Your task to perform on an android device: What's the weather going to be tomorrow? Image 0: 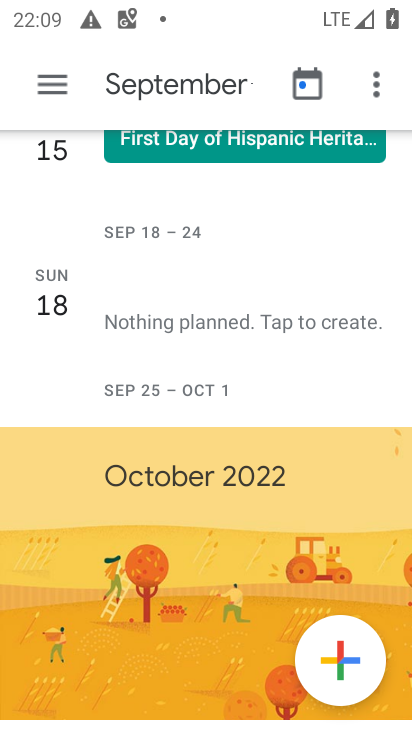
Step 0: press home button
Your task to perform on an android device: What's the weather going to be tomorrow? Image 1: 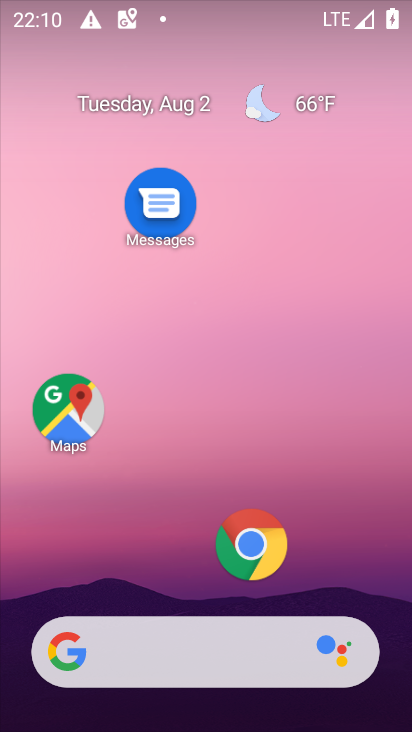
Step 1: drag from (189, 578) to (222, 187)
Your task to perform on an android device: What's the weather going to be tomorrow? Image 2: 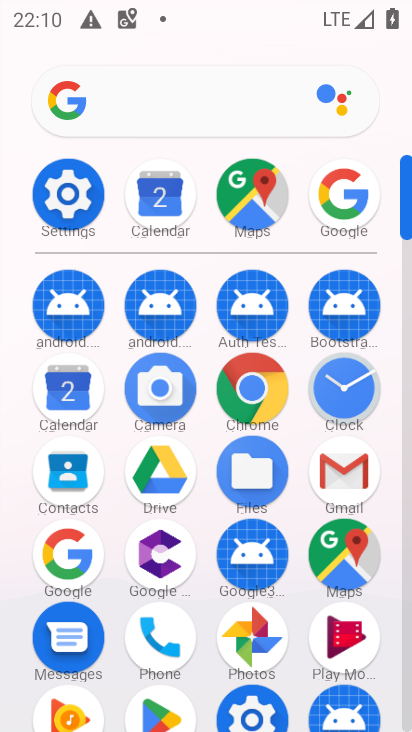
Step 2: click (64, 568)
Your task to perform on an android device: What's the weather going to be tomorrow? Image 3: 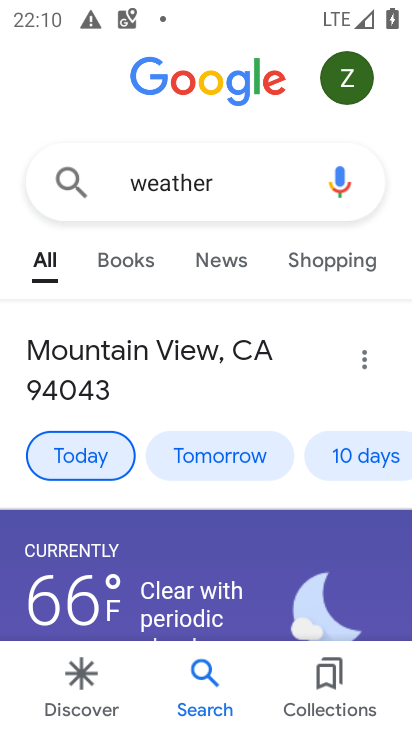
Step 3: click (234, 461)
Your task to perform on an android device: What's the weather going to be tomorrow? Image 4: 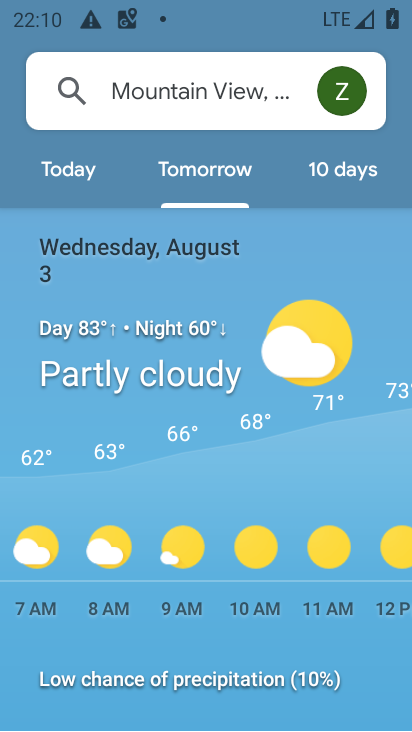
Step 4: task complete